Your task to perform on an android device: turn on the 24-hour format for clock Image 0: 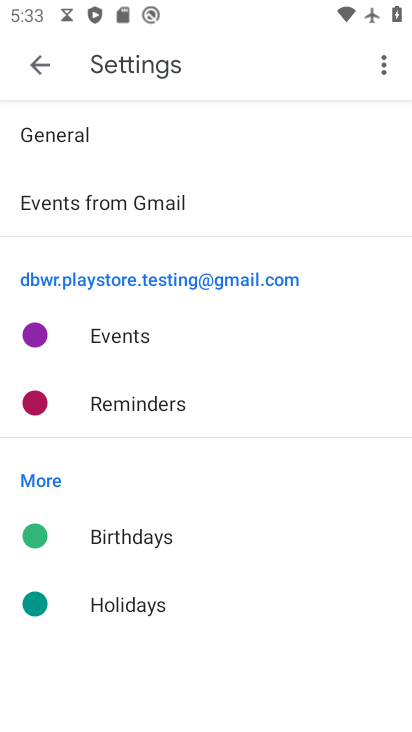
Step 0: press home button
Your task to perform on an android device: turn on the 24-hour format for clock Image 1: 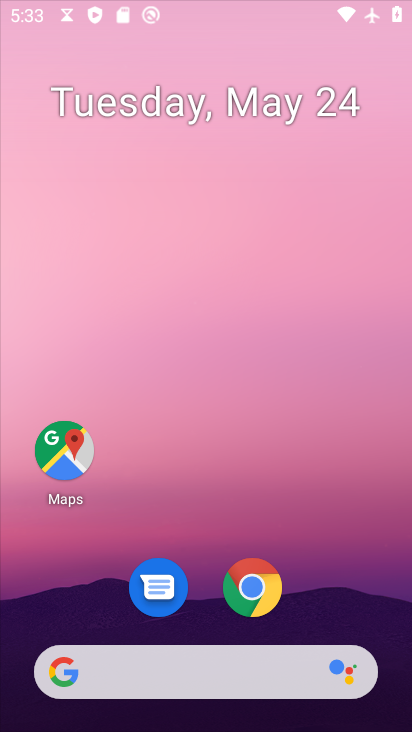
Step 1: drag from (324, 600) to (225, 34)
Your task to perform on an android device: turn on the 24-hour format for clock Image 2: 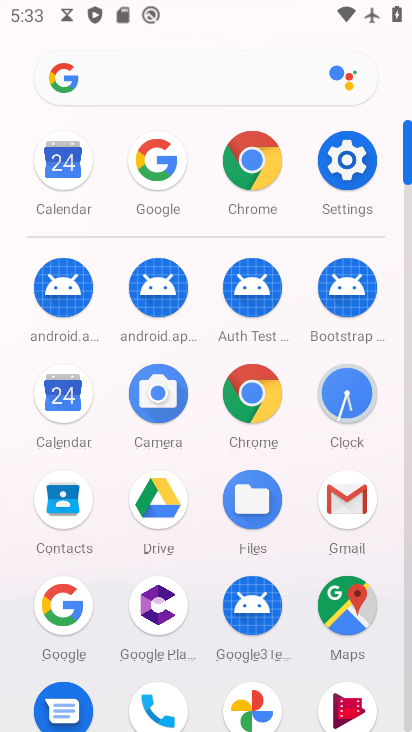
Step 2: click (342, 380)
Your task to perform on an android device: turn on the 24-hour format for clock Image 3: 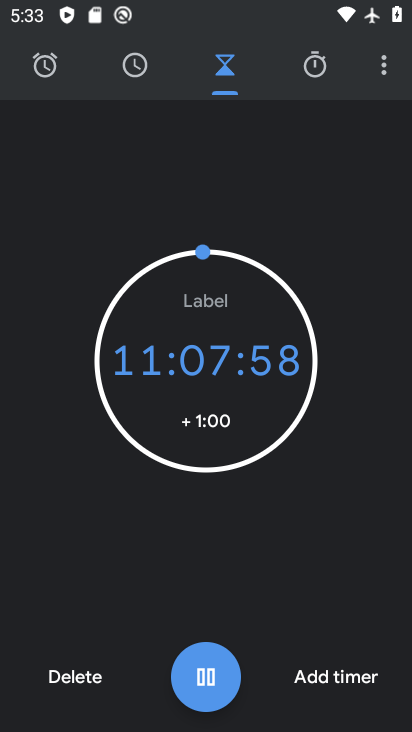
Step 3: click (378, 59)
Your task to perform on an android device: turn on the 24-hour format for clock Image 4: 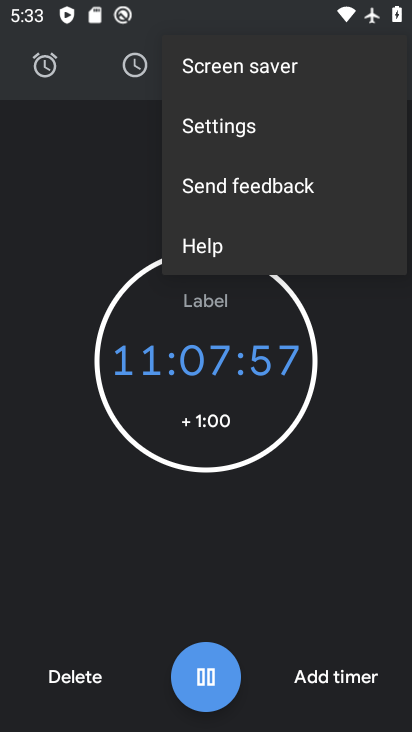
Step 4: click (316, 129)
Your task to perform on an android device: turn on the 24-hour format for clock Image 5: 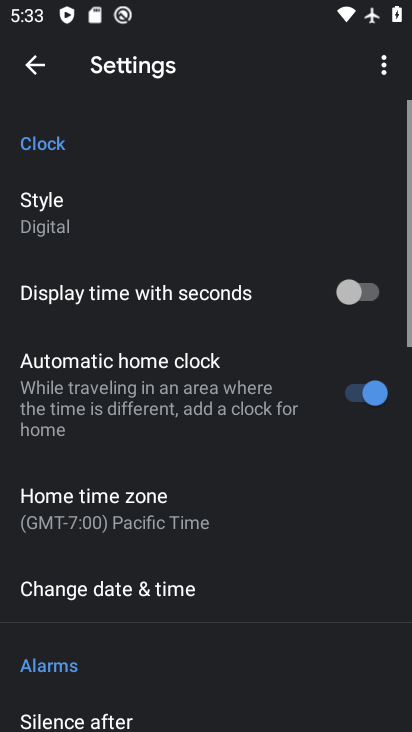
Step 5: click (178, 604)
Your task to perform on an android device: turn on the 24-hour format for clock Image 6: 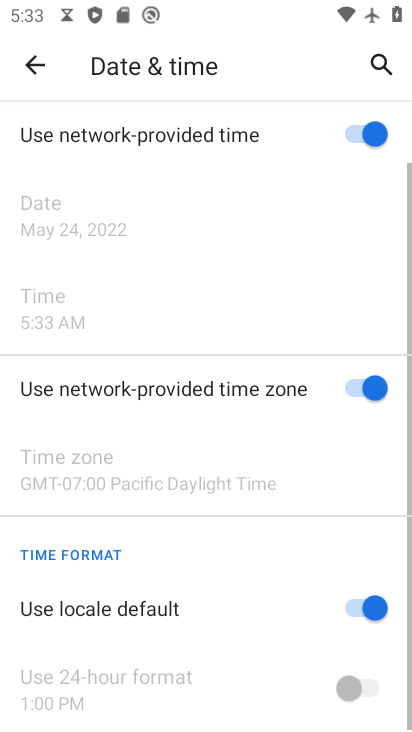
Step 6: drag from (289, 630) to (278, 222)
Your task to perform on an android device: turn on the 24-hour format for clock Image 7: 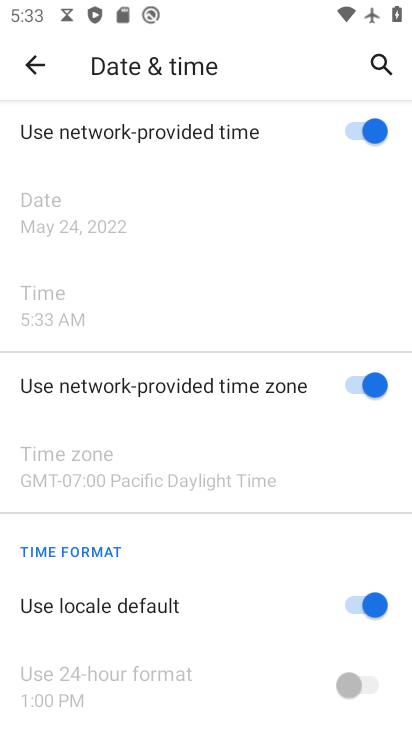
Step 7: click (367, 603)
Your task to perform on an android device: turn on the 24-hour format for clock Image 8: 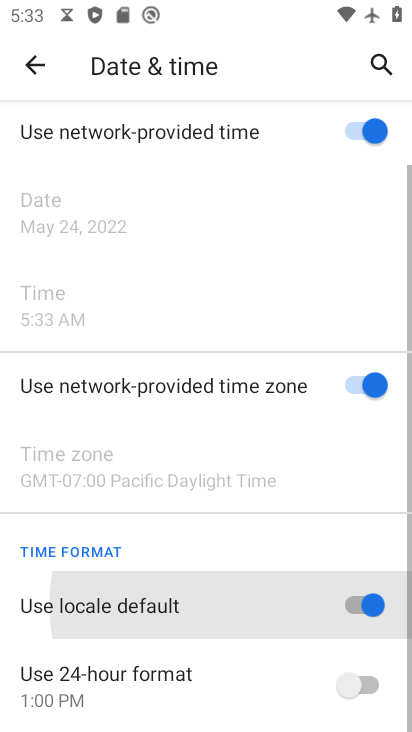
Step 8: click (358, 675)
Your task to perform on an android device: turn on the 24-hour format for clock Image 9: 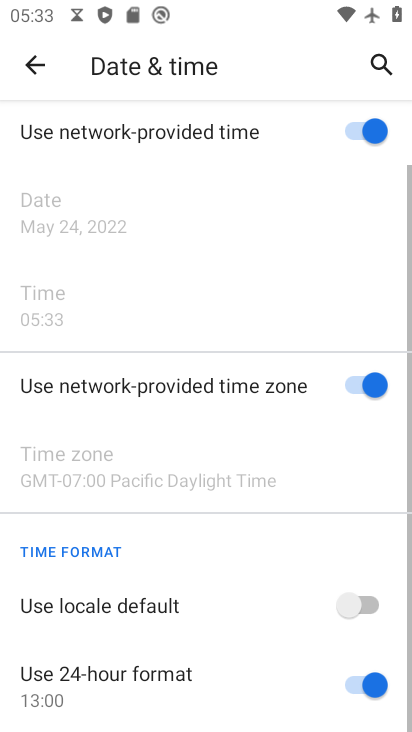
Step 9: task complete